Your task to perform on an android device: Check the news Image 0: 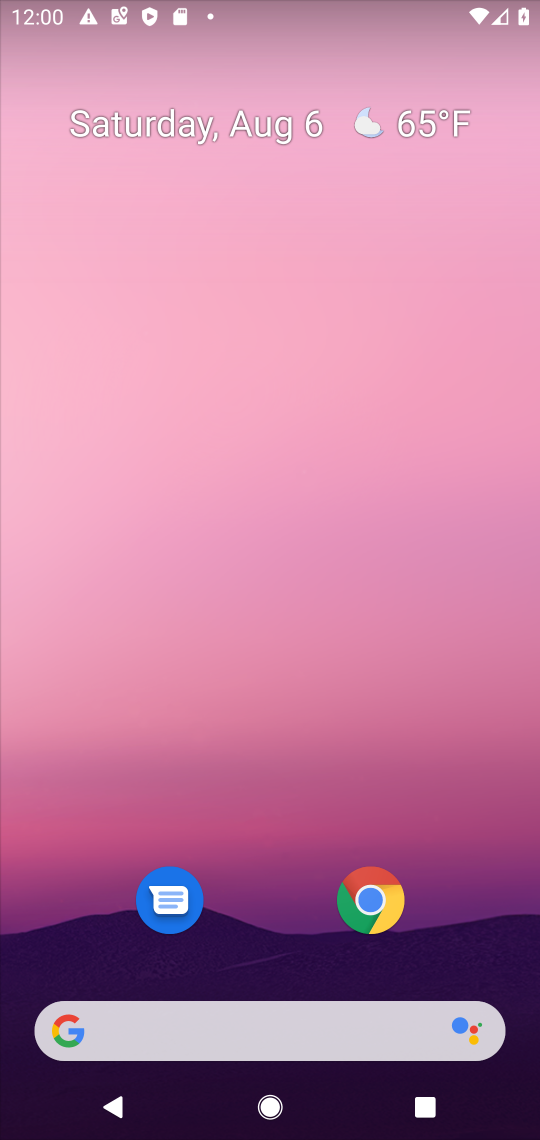
Step 0: drag from (1, 364) to (483, 426)
Your task to perform on an android device: Check the news Image 1: 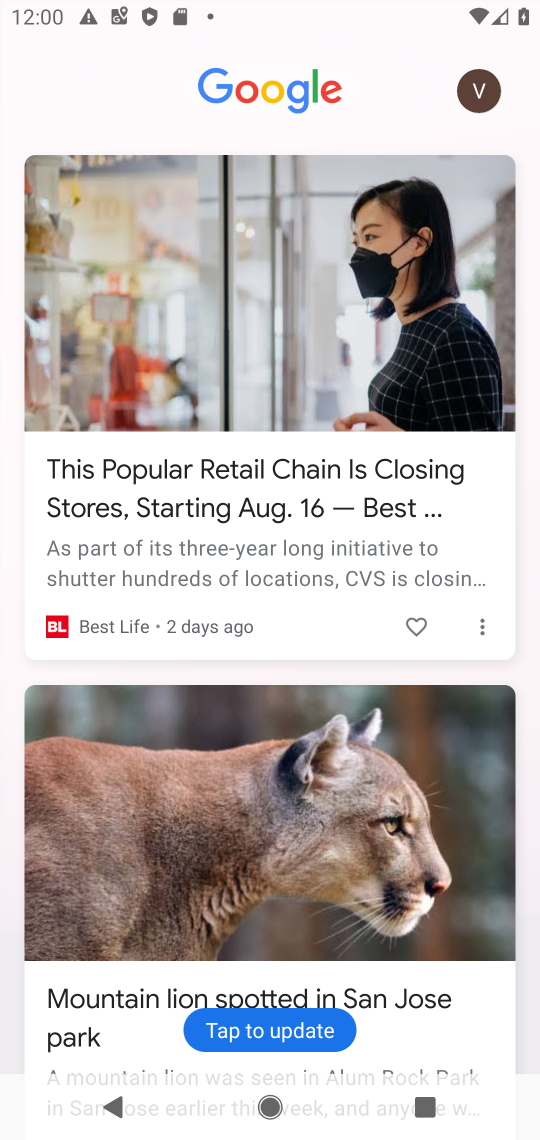
Step 1: task complete